Your task to perform on an android device: Check the news Image 0: 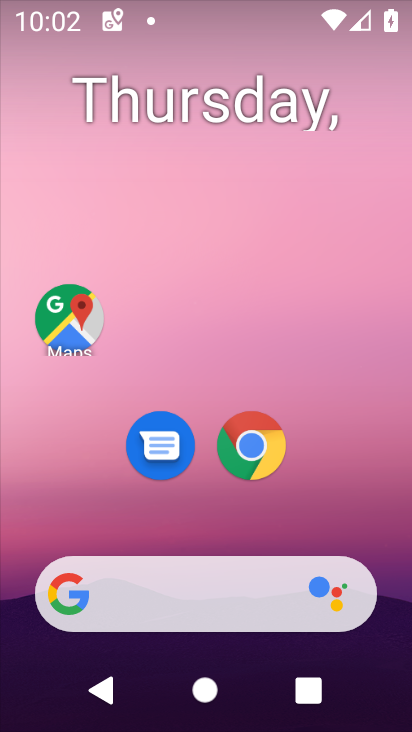
Step 0: click (217, 565)
Your task to perform on an android device: Check the news Image 1: 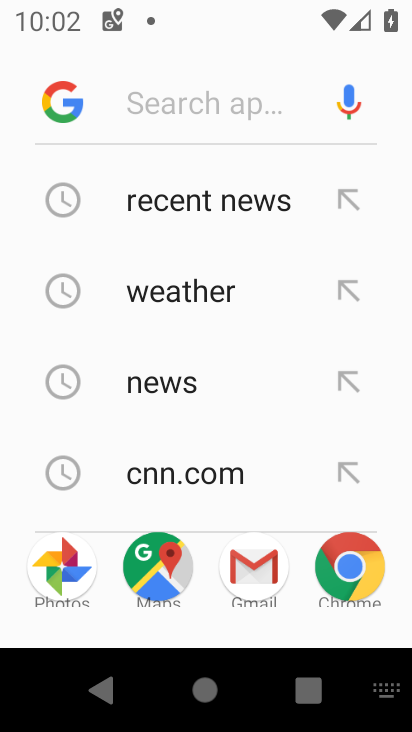
Step 1: click (161, 398)
Your task to perform on an android device: Check the news Image 2: 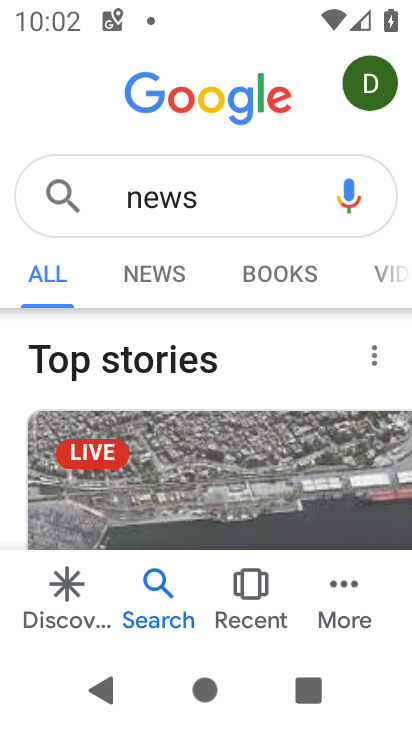
Step 2: task complete